Your task to perform on an android device: Open maps Image 0: 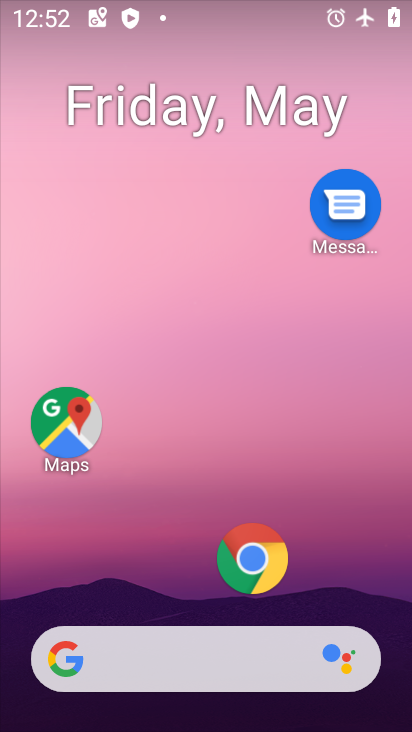
Step 0: drag from (199, 657) to (208, 190)
Your task to perform on an android device: Open maps Image 1: 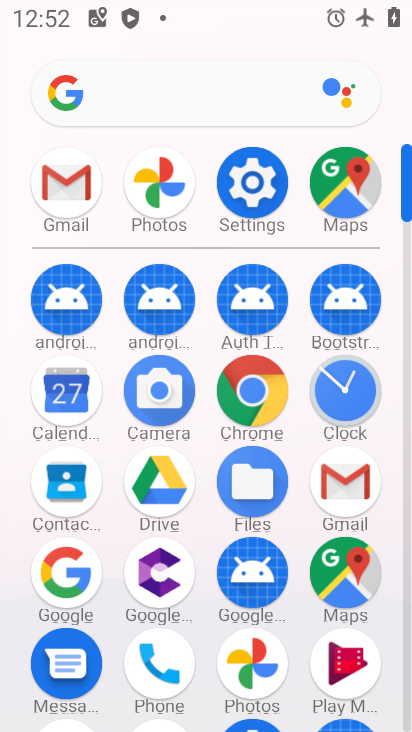
Step 1: click (359, 592)
Your task to perform on an android device: Open maps Image 2: 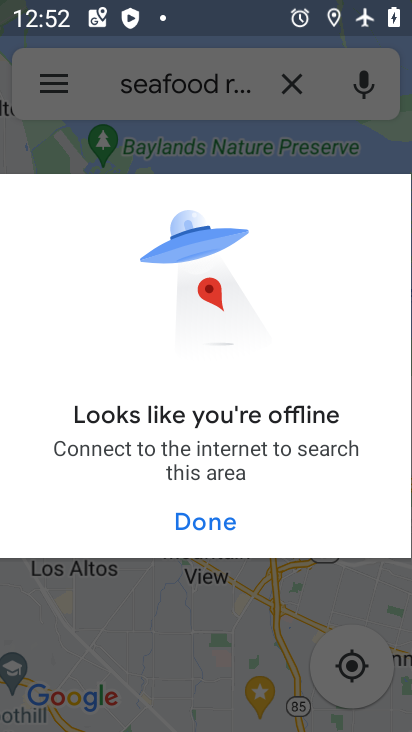
Step 2: click (186, 519)
Your task to perform on an android device: Open maps Image 3: 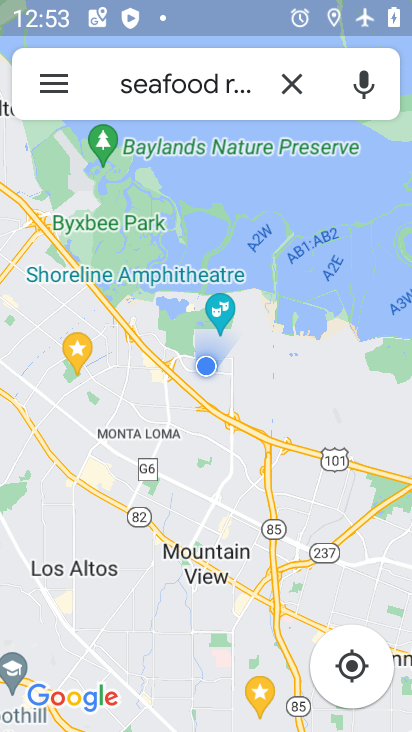
Step 3: task complete